Your task to perform on an android device: check data usage Image 0: 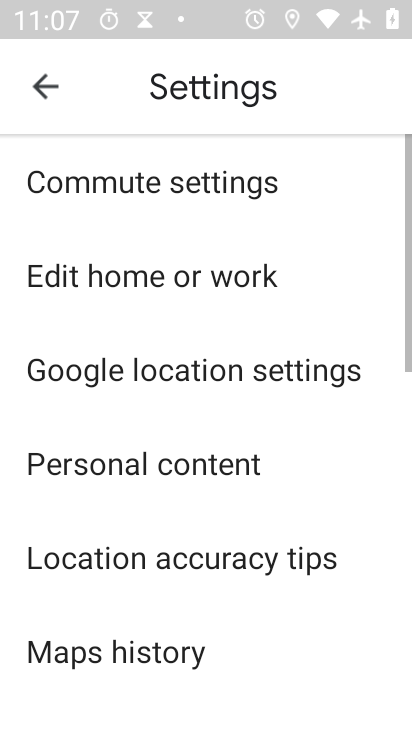
Step 0: press home button
Your task to perform on an android device: check data usage Image 1: 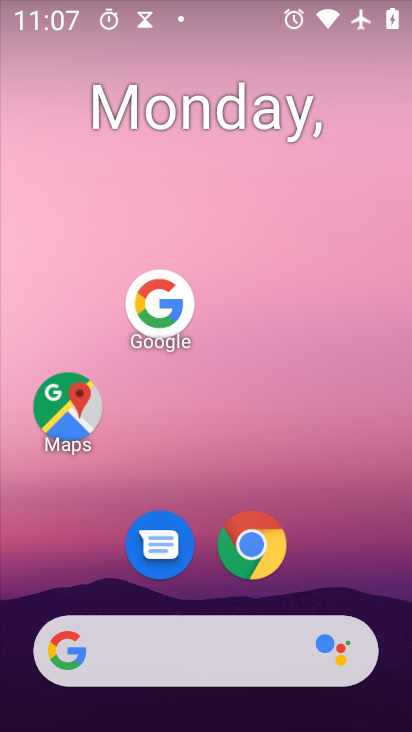
Step 1: drag from (142, 663) to (338, 48)
Your task to perform on an android device: check data usage Image 2: 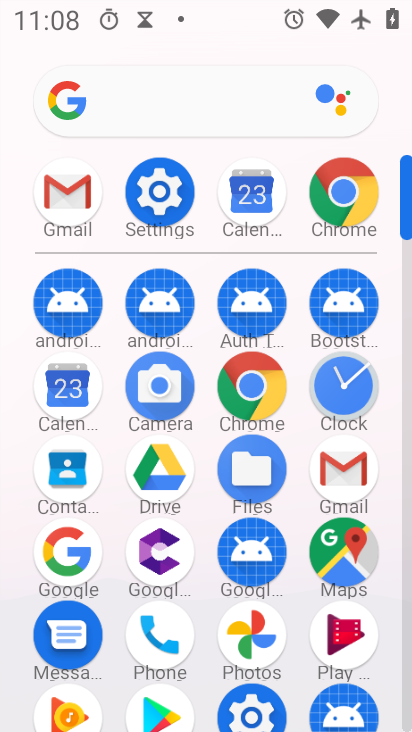
Step 2: click (172, 193)
Your task to perform on an android device: check data usage Image 3: 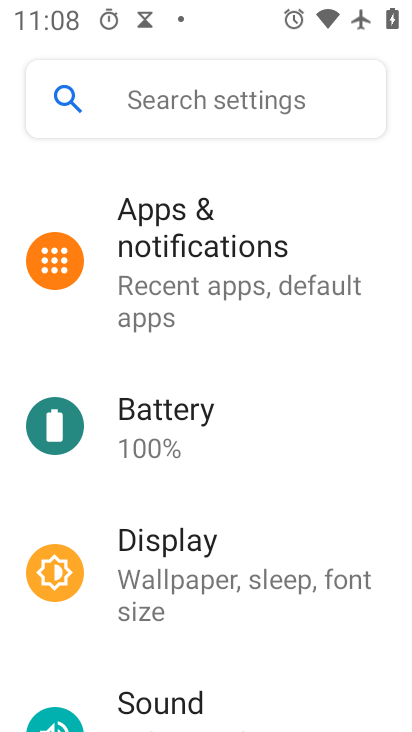
Step 3: drag from (240, 673) to (282, 223)
Your task to perform on an android device: check data usage Image 4: 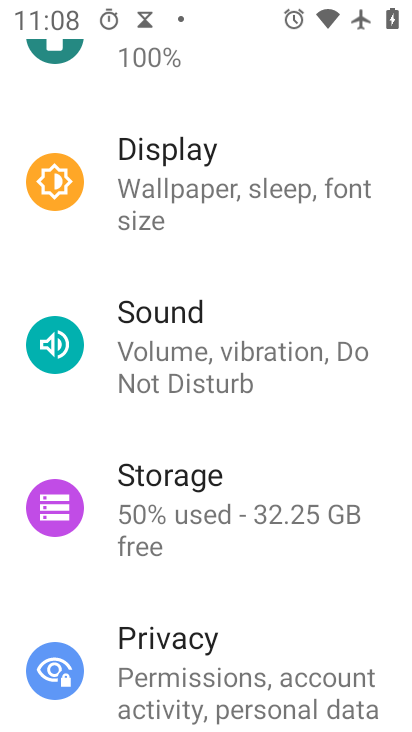
Step 4: drag from (291, 139) to (229, 684)
Your task to perform on an android device: check data usage Image 5: 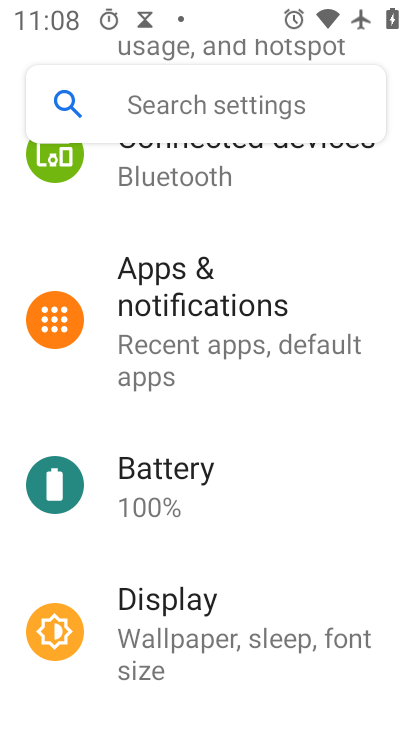
Step 5: drag from (246, 263) to (231, 591)
Your task to perform on an android device: check data usage Image 6: 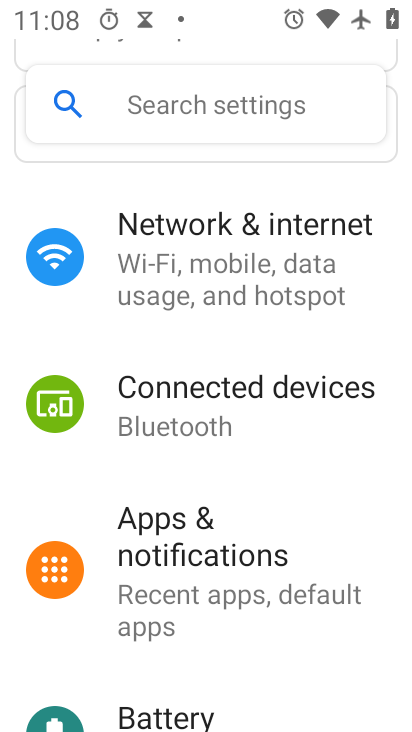
Step 6: click (231, 266)
Your task to perform on an android device: check data usage Image 7: 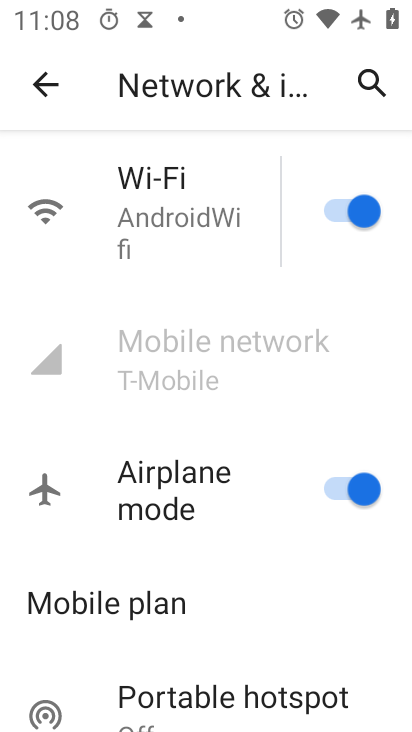
Step 7: click (137, 221)
Your task to perform on an android device: check data usage Image 8: 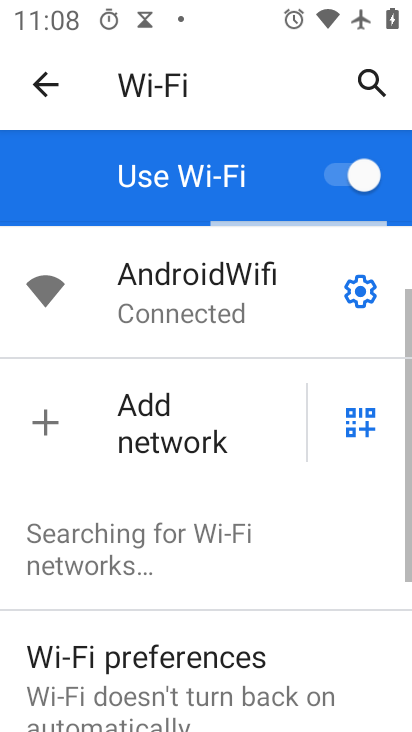
Step 8: drag from (182, 645) to (297, 147)
Your task to perform on an android device: check data usage Image 9: 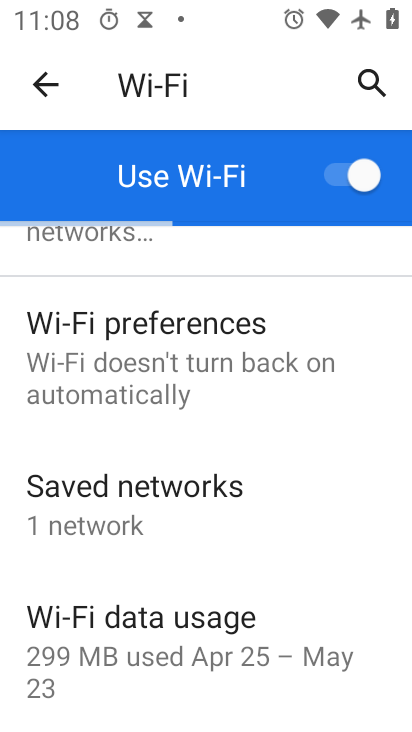
Step 9: click (160, 633)
Your task to perform on an android device: check data usage Image 10: 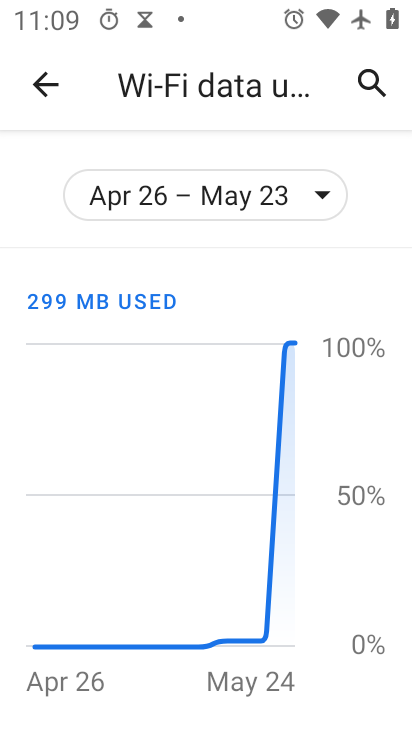
Step 10: task complete